Your task to perform on an android device: turn on javascript in the chrome app Image 0: 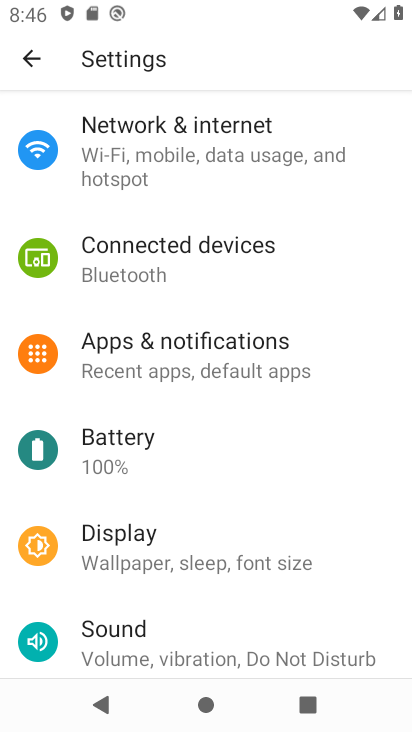
Step 0: press home button
Your task to perform on an android device: turn on javascript in the chrome app Image 1: 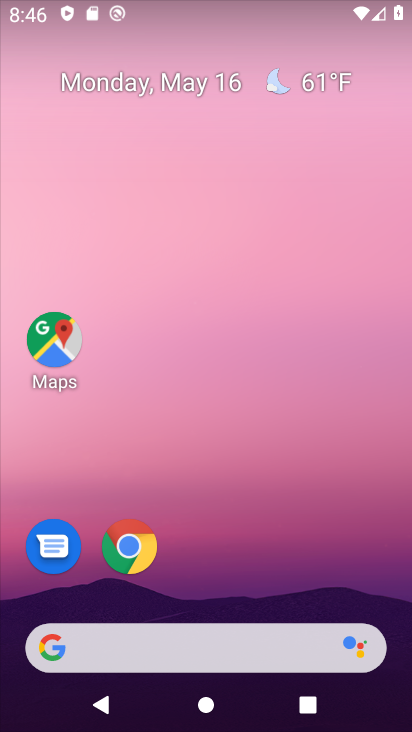
Step 1: click (131, 561)
Your task to perform on an android device: turn on javascript in the chrome app Image 2: 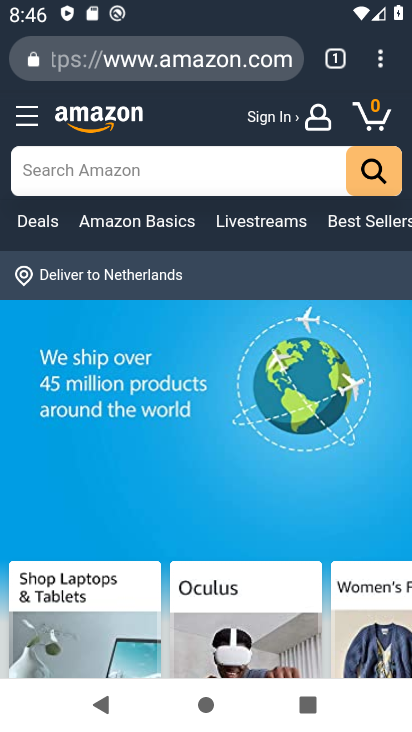
Step 2: click (385, 54)
Your task to perform on an android device: turn on javascript in the chrome app Image 3: 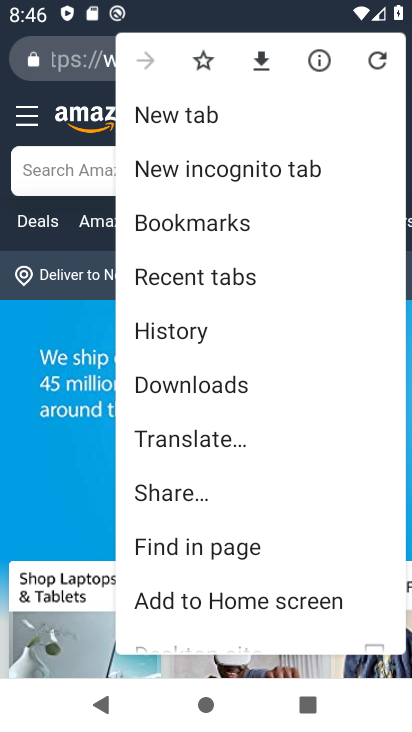
Step 3: drag from (238, 552) to (194, 296)
Your task to perform on an android device: turn on javascript in the chrome app Image 4: 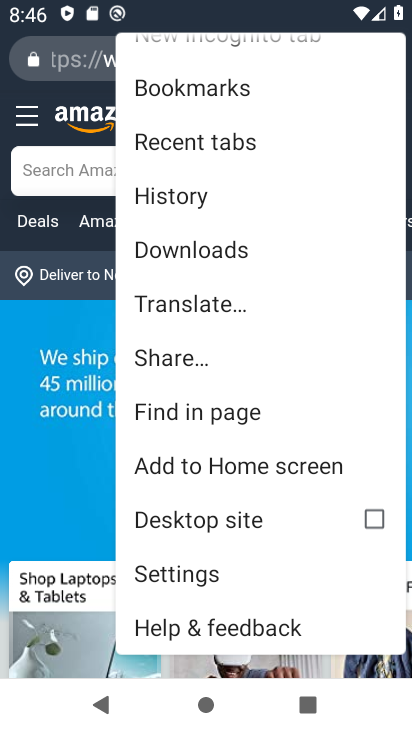
Step 4: click (253, 581)
Your task to perform on an android device: turn on javascript in the chrome app Image 5: 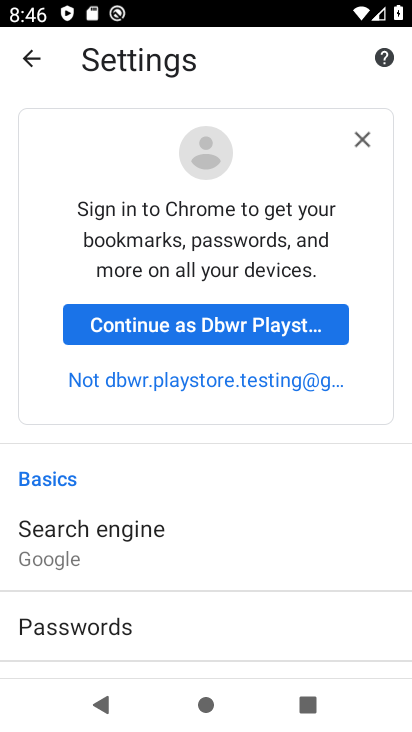
Step 5: drag from (224, 596) to (178, 378)
Your task to perform on an android device: turn on javascript in the chrome app Image 6: 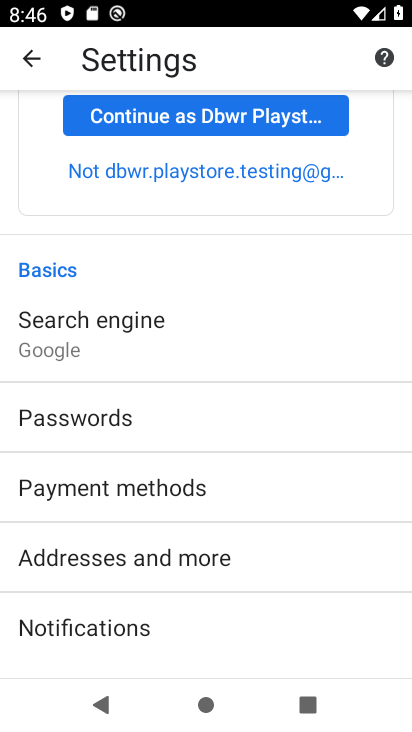
Step 6: drag from (224, 623) to (163, 276)
Your task to perform on an android device: turn on javascript in the chrome app Image 7: 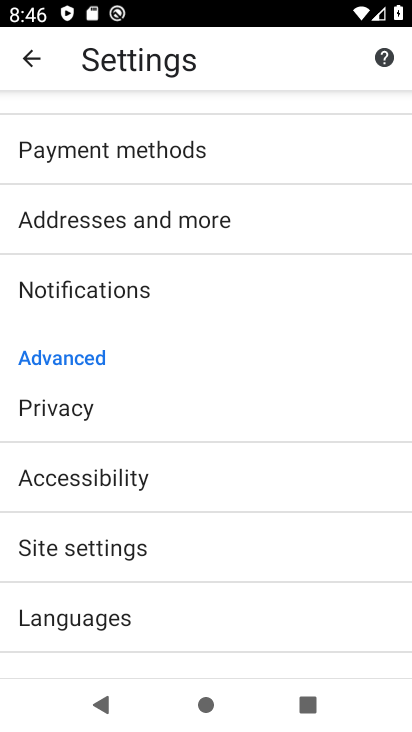
Step 7: click (176, 554)
Your task to perform on an android device: turn on javascript in the chrome app Image 8: 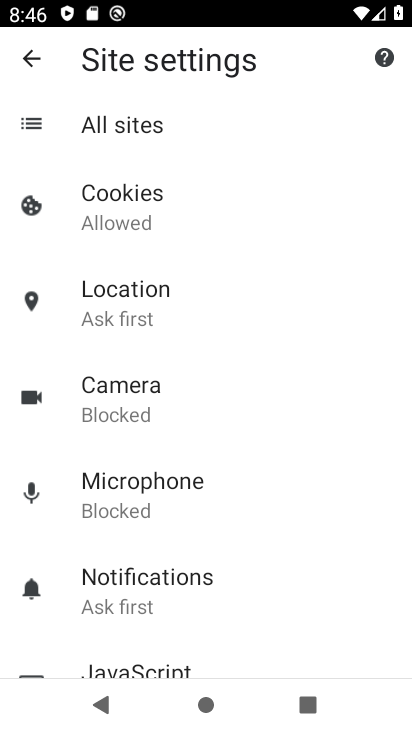
Step 8: drag from (176, 554) to (159, 376)
Your task to perform on an android device: turn on javascript in the chrome app Image 9: 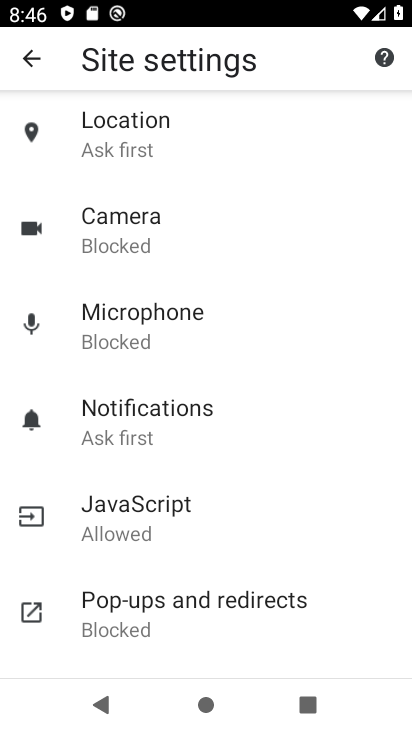
Step 9: click (165, 502)
Your task to perform on an android device: turn on javascript in the chrome app Image 10: 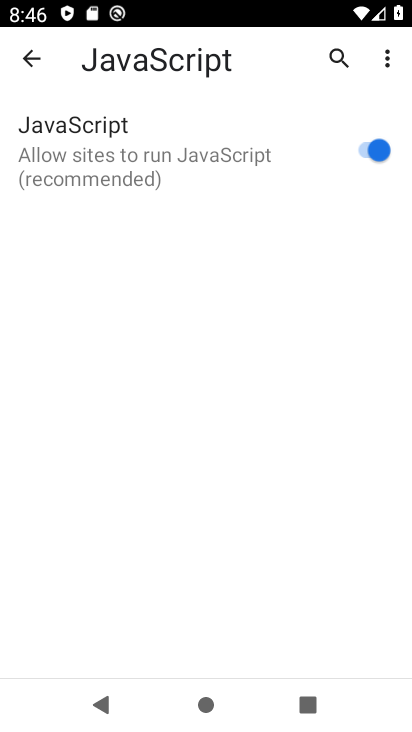
Step 10: task complete